Your task to perform on an android device: Go to network settings Image 0: 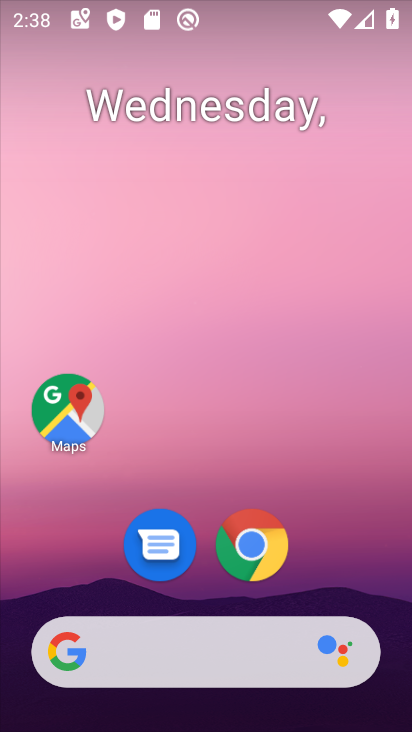
Step 0: press home button
Your task to perform on an android device: Go to network settings Image 1: 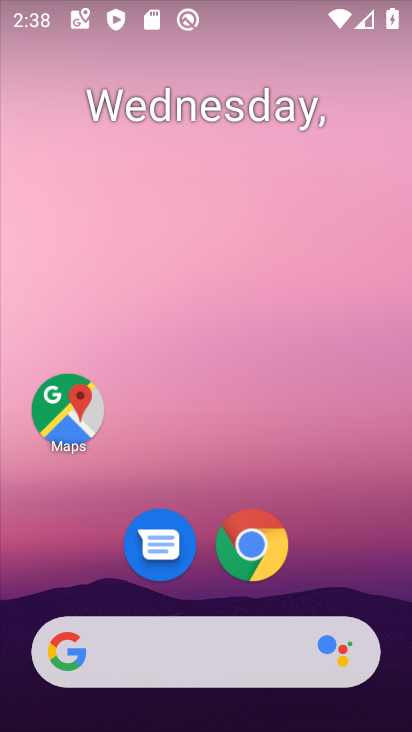
Step 1: drag from (226, 457) to (317, 193)
Your task to perform on an android device: Go to network settings Image 2: 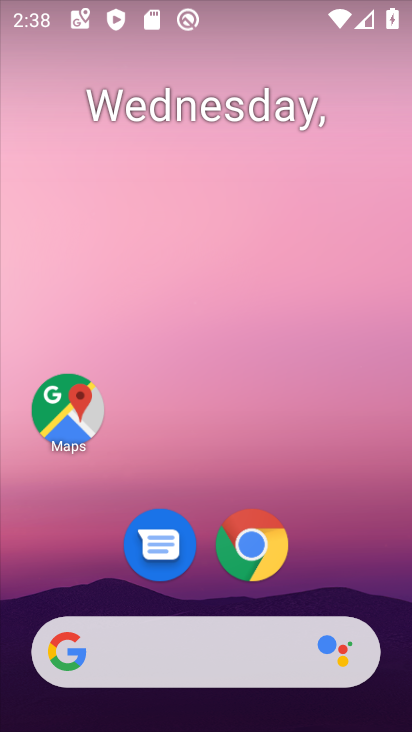
Step 2: drag from (203, 642) to (349, 26)
Your task to perform on an android device: Go to network settings Image 3: 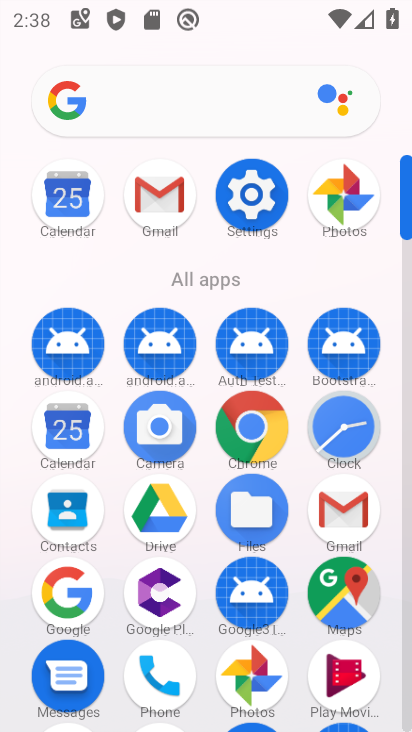
Step 3: click (249, 189)
Your task to perform on an android device: Go to network settings Image 4: 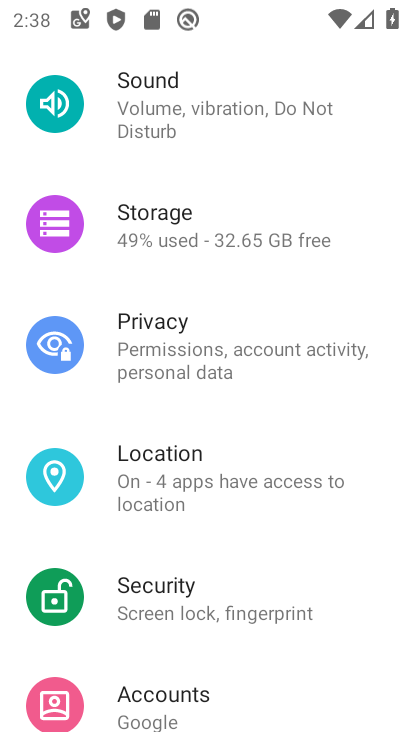
Step 4: drag from (342, 75) to (187, 507)
Your task to perform on an android device: Go to network settings Image 5: 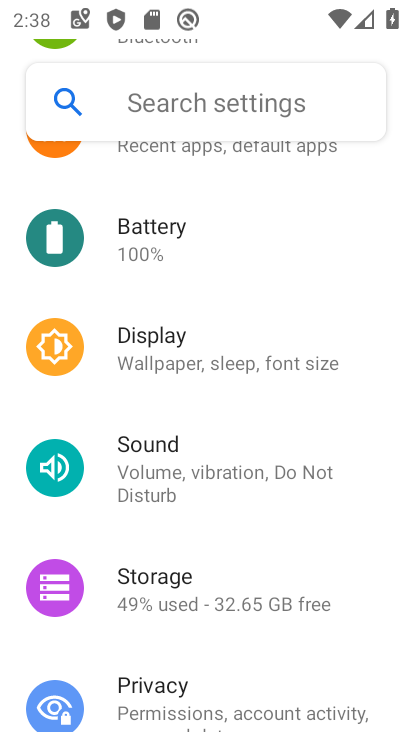
Step 5: drag from (271, 195) to (212, 540)
Your task to perform on an android device: Go to network settings Image 6: 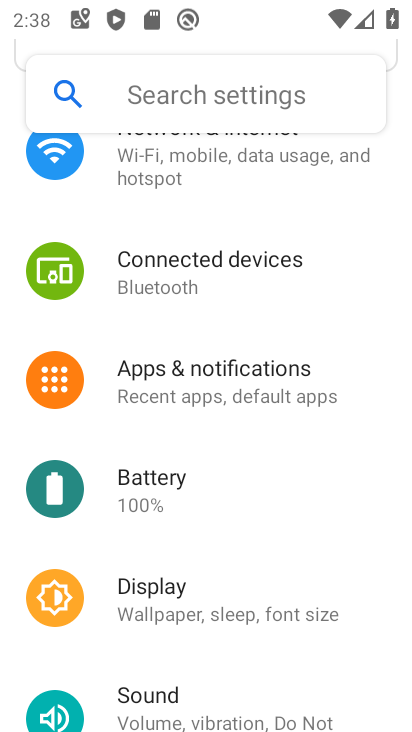
Step 6: drag from (308, 205) to (230, 650)
Your task to perform on an android device: Go to network settings Image 7: 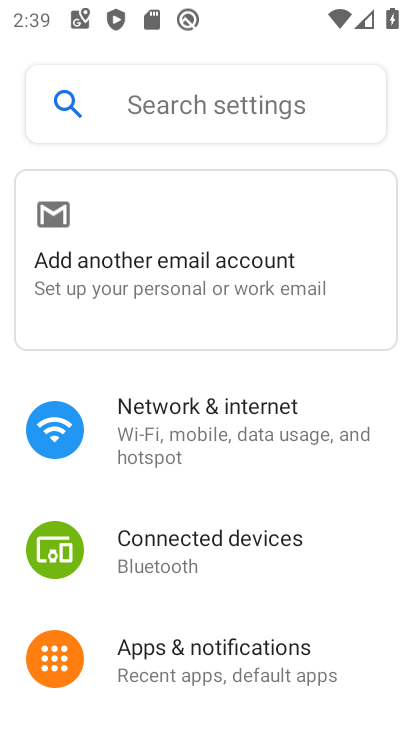
Step 7: click (213, 423)
Your task to perform on an android device: Go to network settings Image 8: 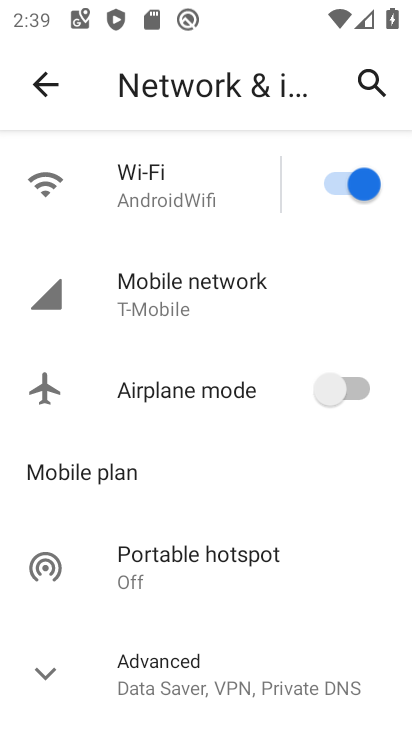
Step 8: task complete